Your task to perform on an android device: add a contact in the contacts app Image 0: 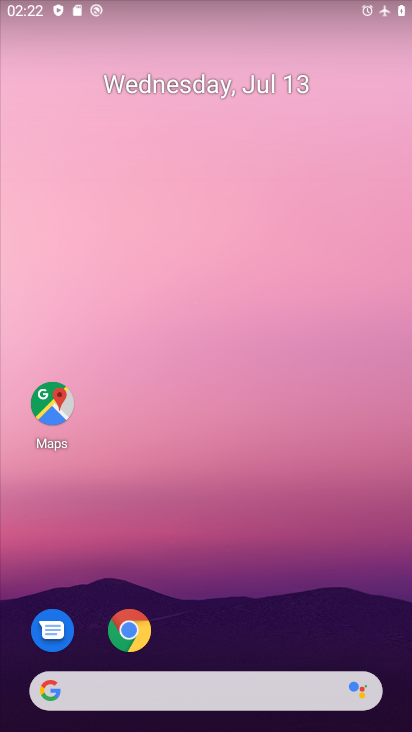
Step 0: drag from (218, 640) to (218, 234)
Your task to perform on an android device: add a contact in the contacts app Image 1: 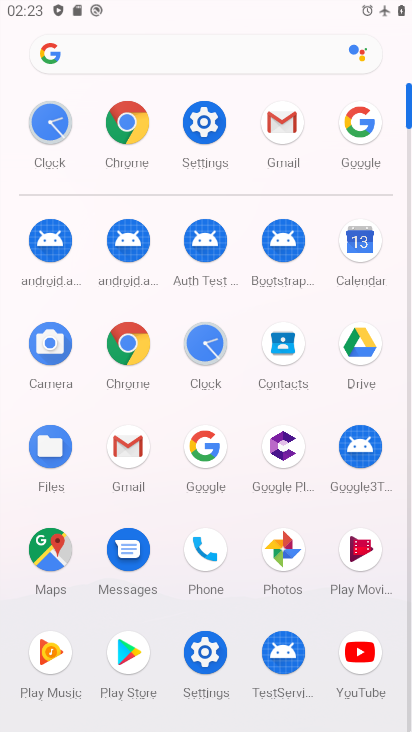
Step 1: click (273, 373)
Your task to perform on an android device: add a contact in the contacts app Image 2: 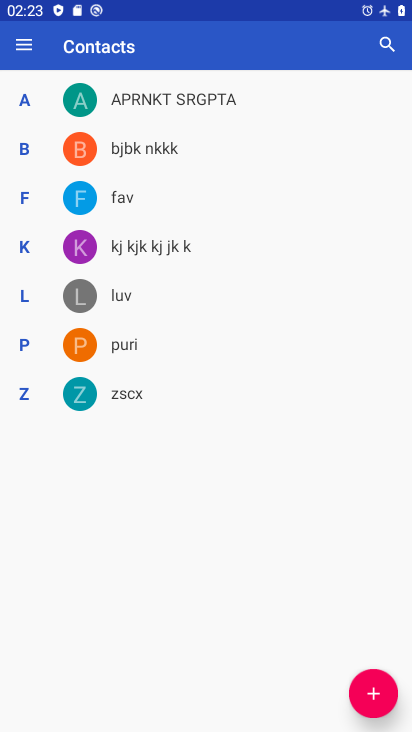
Step 2: click (377, 689)
Your task to perform on an android device: add a contact in the contacts app Image 3: 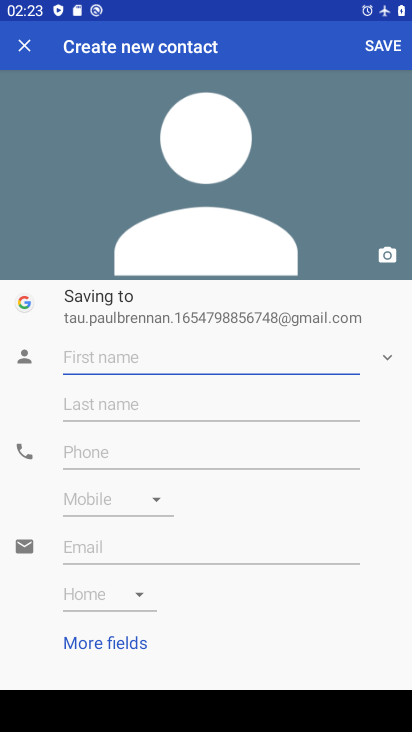
Step 3: click (171, 351)
Your task to perform on an android device: add a contact in the contacts app Image 4: 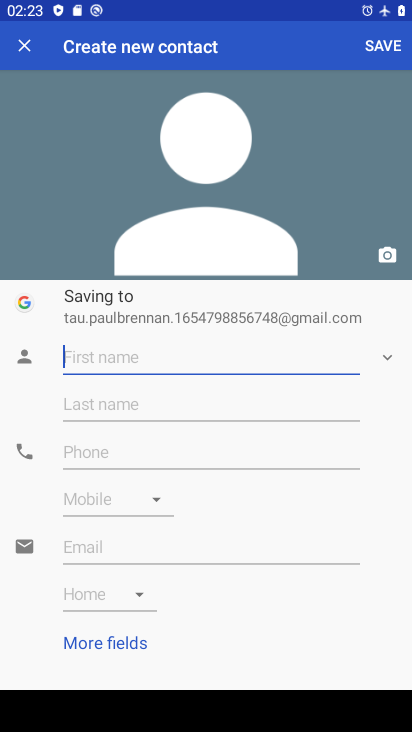
Step 4: click (189, 445)
Your task to perform on an android device: add a contact in the contacts app Image 5: 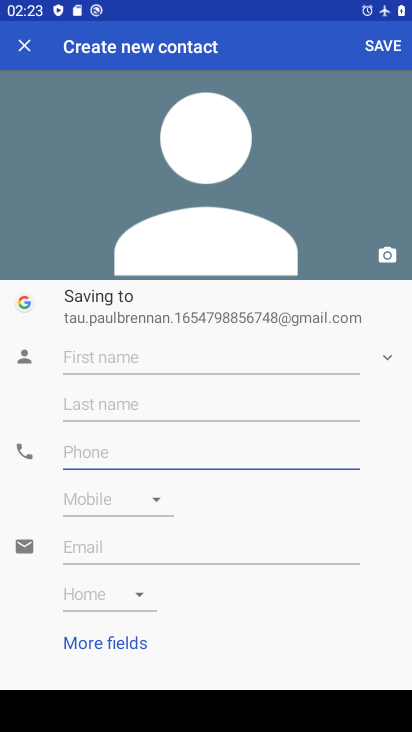
Step 5: type "89y99899899"
Your task to perform on an android device: add a contact in the contacts app Image 6: 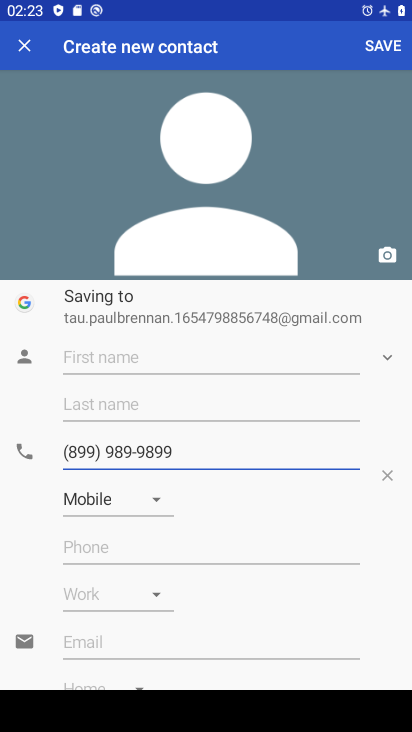
Step 6: click (264, 359)
Your task to perform on an android device: add a contact in the contacts app Image 7: 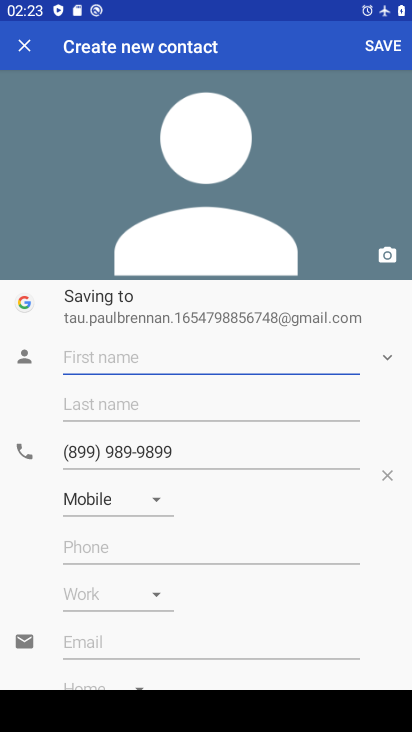
Step 7: type "bjkbjhbjbkj"
Your task to perform on an android device: add a contact in the contacts app Image 8: 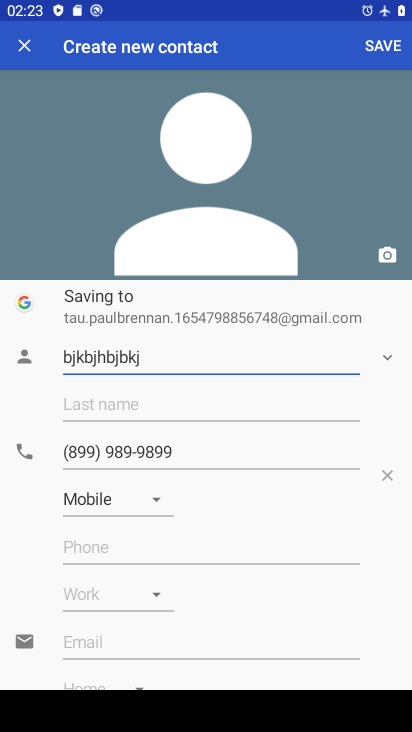
Step 8: click (381, 48)
Your task to perform on an android device: add a contact in the contacts app Image 9: 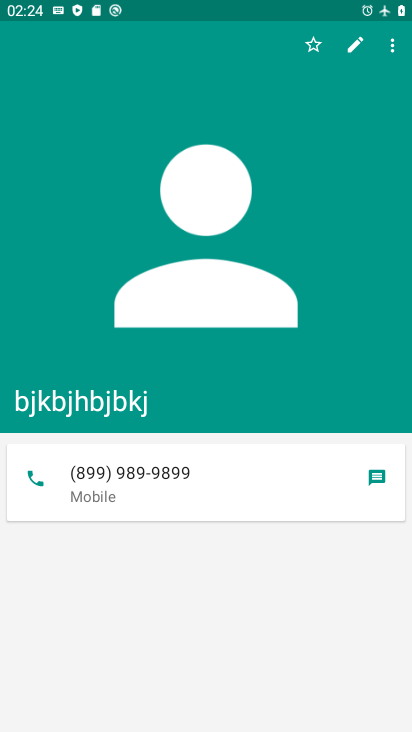
Step 9: task complete